Your task to perform on an android device: turn pop-ups off in chrome Image 0: 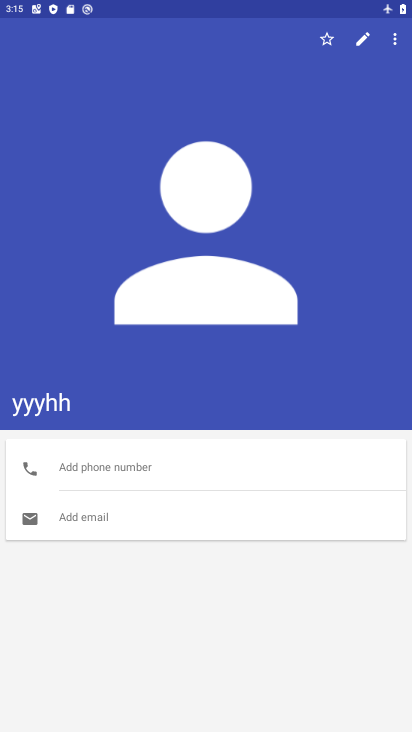
Step 0: press home button
Your task to perform on an android device: turn pop-ups off in chrome Image 1: 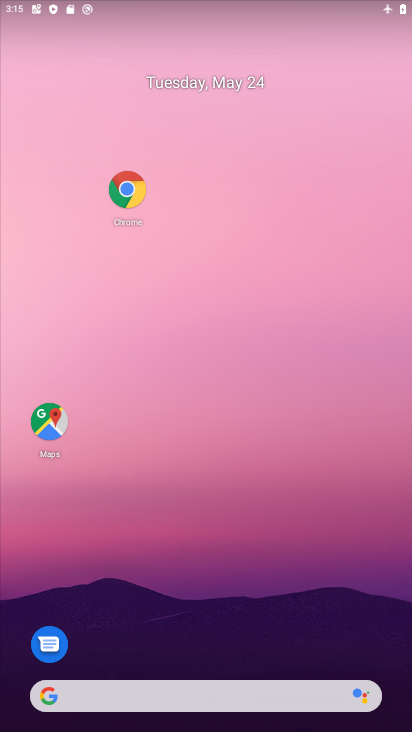
Step 1: click (131, 192)
Your task to perform on an android device: turn pop-ups off in chrome Image 2: 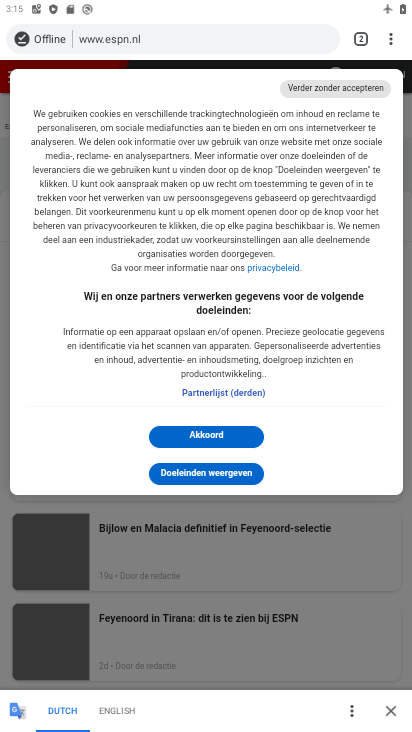
Step 2: click (386, 44)
Your task to perform on an android device: turn pop-ups off in chrome Image 3: 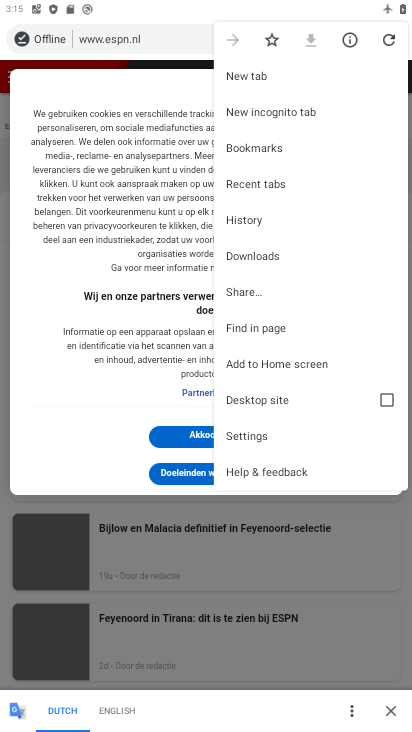
Step 3: click (283, 437)
Your task to perform on an android device: turn pop-ups off in chrome Image 4: 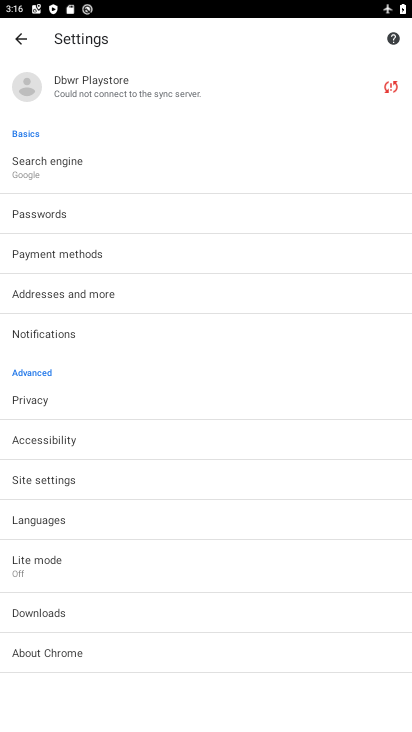
Step 4: click (85, 486)
Your task to perform on an android device: turn pop-ups off in chrome Image 5: 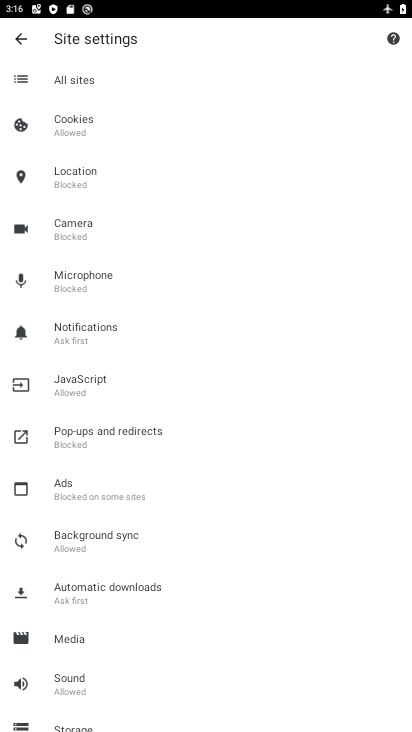
Step 5: click (115, 430)
Your task to perform on an android device: turn pop-ups off in chrome Image 6: 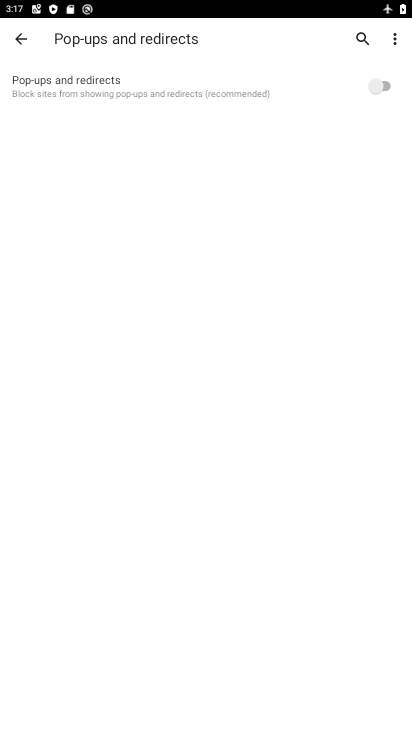
Step 6: task complete